Your task to perform on an android device: turn off smart reply in the gmail app Image 0: 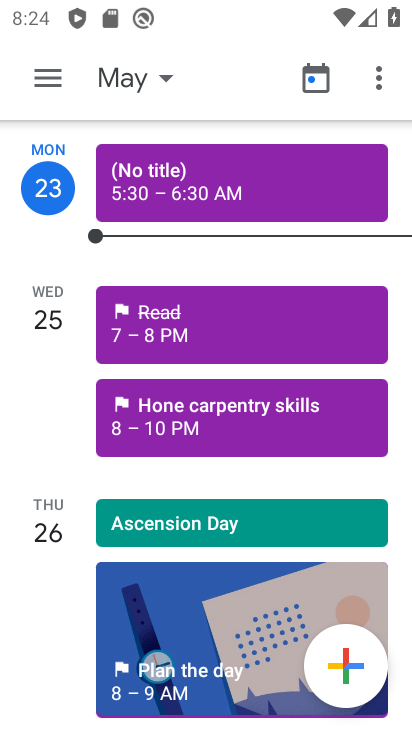
Step 0: press home button
Your task to perform on an android device: turn off smart reply in the gmail app Image 1: 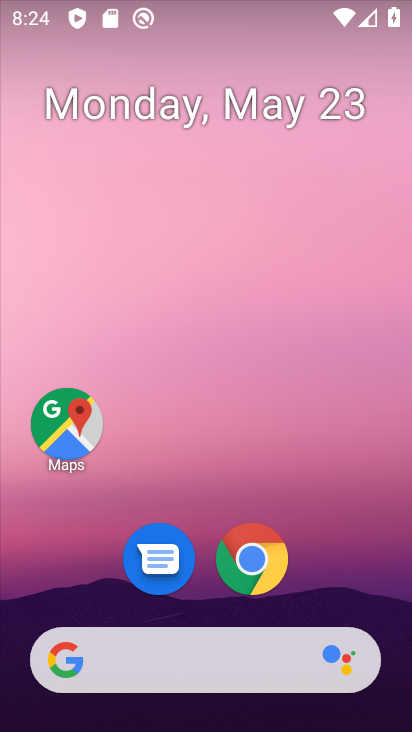
Step 1: drag from (313, 588) to (305, 65)
Your task to perform on an android device: turn off smart reply in the gmail app Image 2: 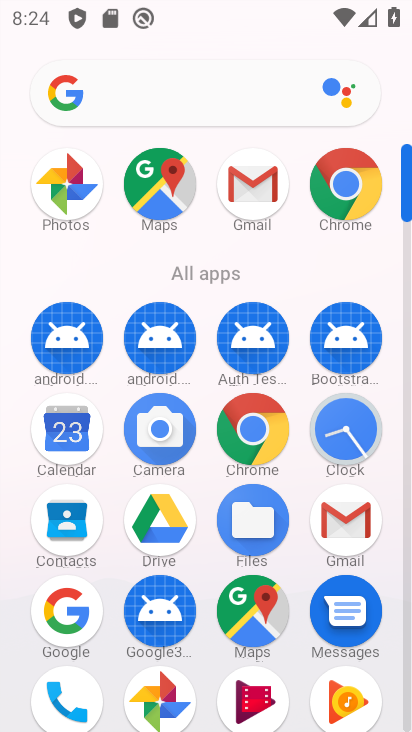
Step 2: click (338, 525)
Your task to perform on an android device: turn off smart reply in the gmail app Image 3: 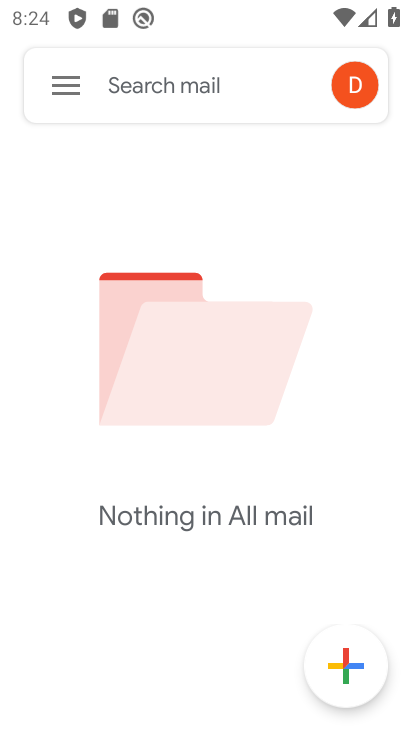
Step 3: click (52, 74)
Your task to perform on an android device: turn off smart reply in the gmail app Image 4: 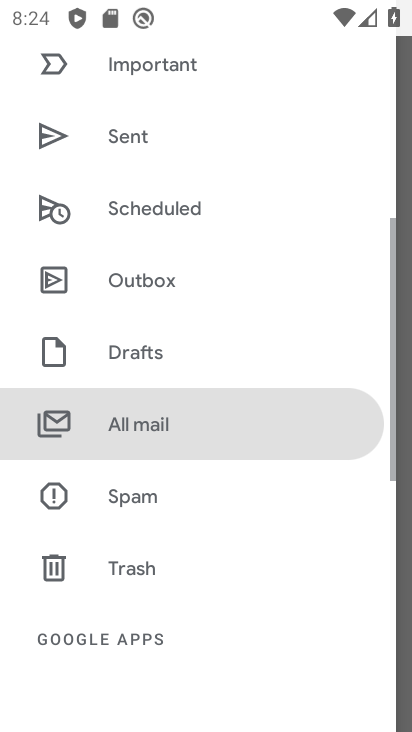
Step 4: drag from (178, 638) to (212, 138)
Your task to perform on an android device: turn off smart reply in the gmail app Image 5: 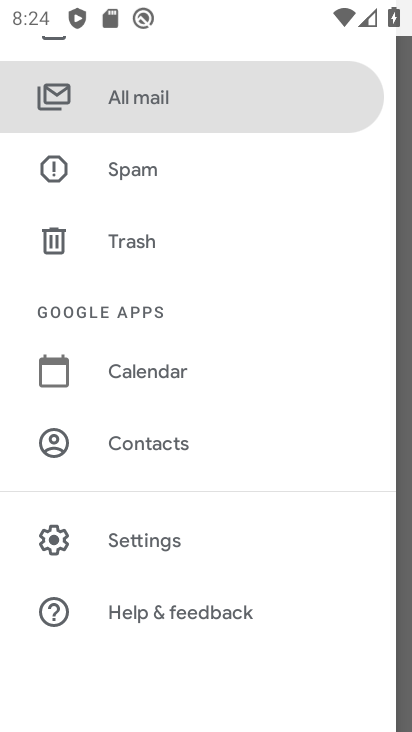
Step 5: click (132, 537)
Your task to perform on an android device: turn off smart reply in the gmail app Image 6: 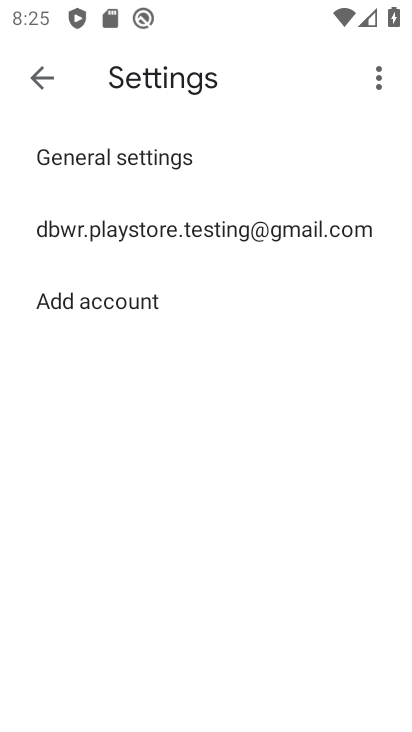
Step 6: click (155, 209)
Your task to perform on an android device: turn off smart reply in the gmail app Image 7: 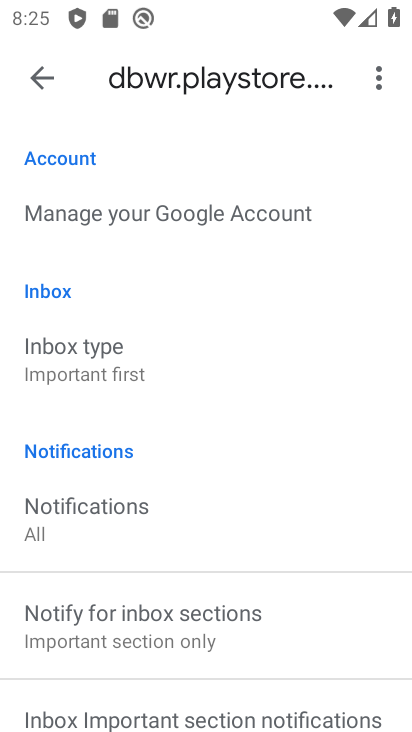
Step 7: drag from (221, 616) to (253, 189)
Your task to perform on an android device: turn off smart reply in the gmail app Image 8: 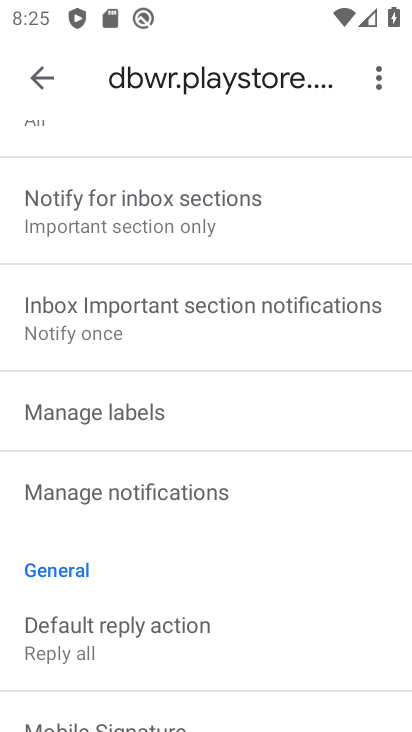
Step 8: drag from (84, 670) to (102, 157)
Your task to perform on an android device: turn off smart reply in the gmail app Image 9: 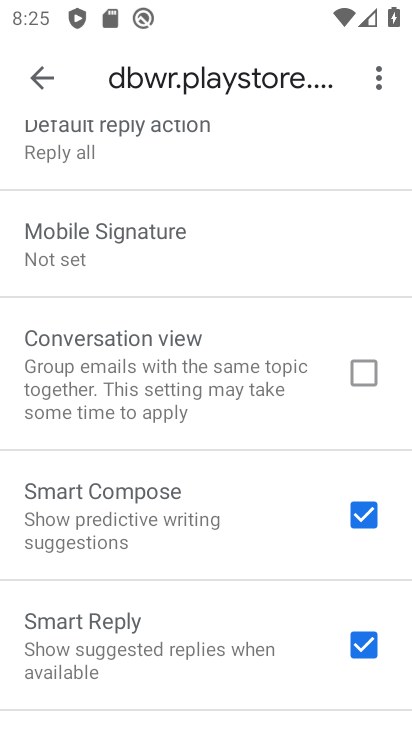
Step 9: drag from (180, 646) to (187, 330)
Your task to perform on an android device: turn off smart reply in the gmail app Image 10: 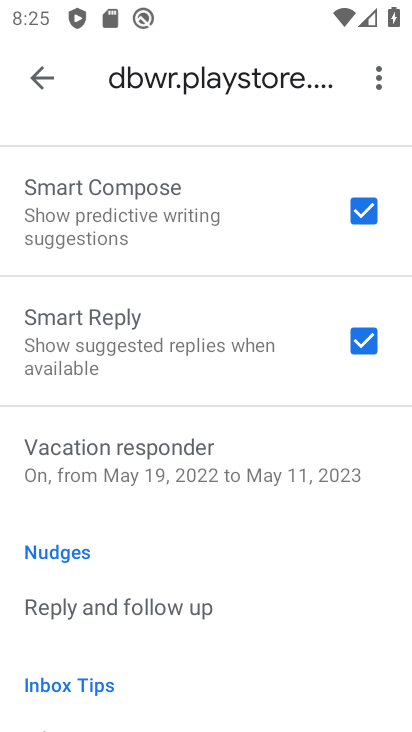
Step 10: click (351, 351)
Your task to perform on an android device: turn off smart reply in the gmail app Image 11: 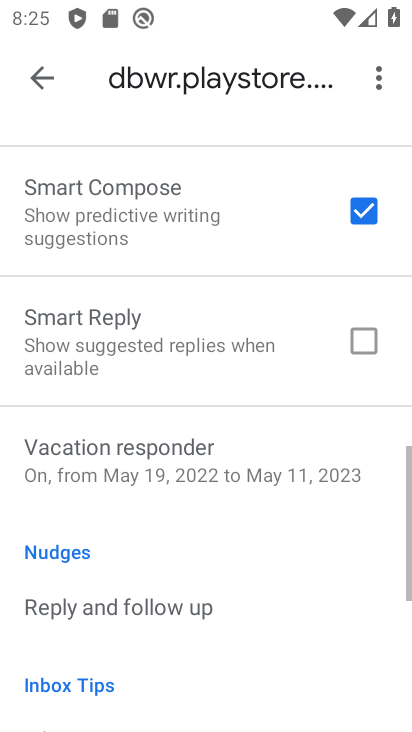
Step 11: task complete